Your task to perform on an android device: check android version Image 0: 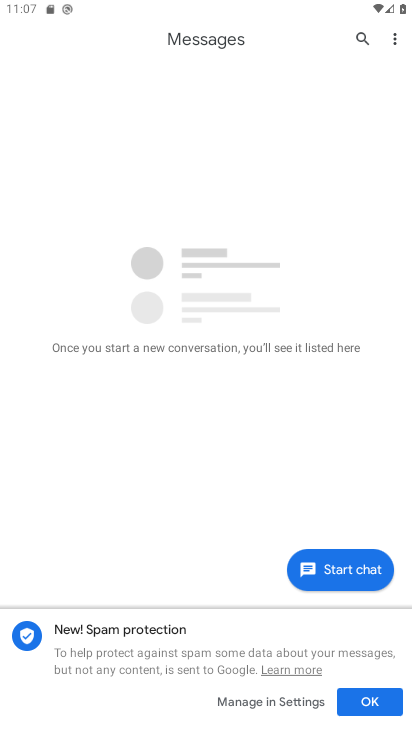
Step 0: press home button
Your task to perform on an android device: check android version Image 1: 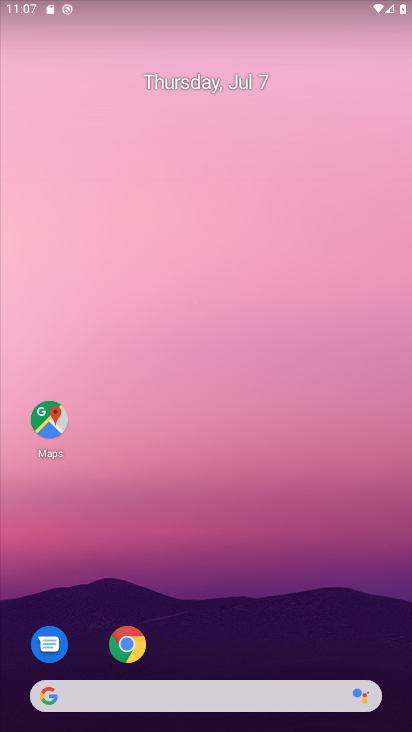
Step 1: drag from (261, 635) to (286, 172)
Your task to perform on an android device: check android version Image 2: 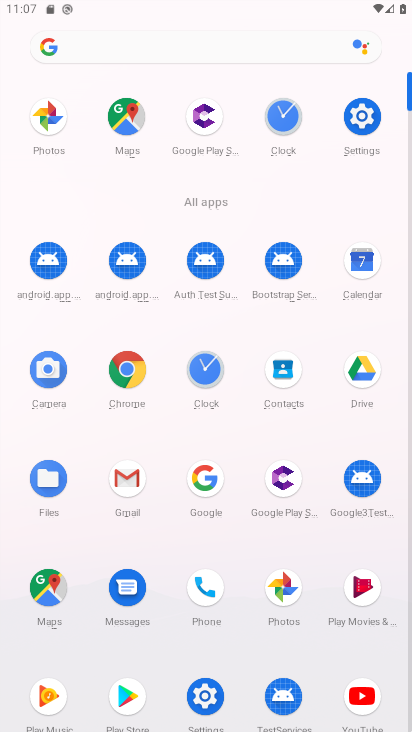
Step 2: click (364, 112)
Your task to perform on an android device: check android version Image 3: 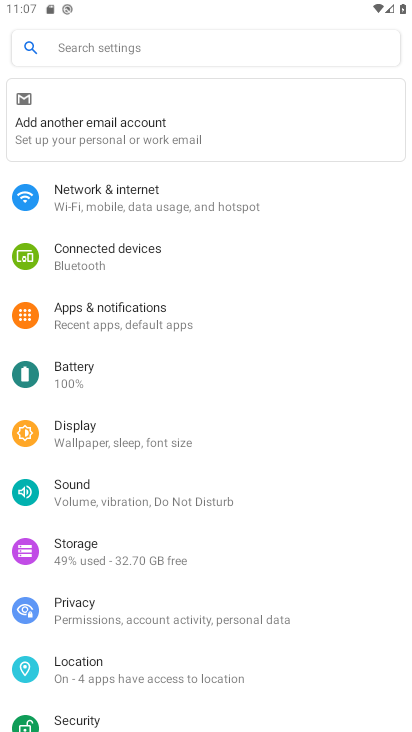
Step 3: drag from (343, 701) to (367, 157)
Your task to perform on an android device: check android version Image 4: 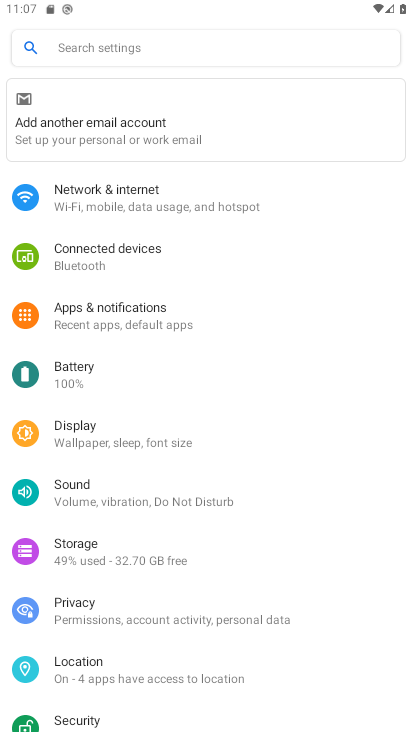
Step 4: drag from (166, 706) to (246, 92)
Your task to perform on an android device: check android version Image 5: 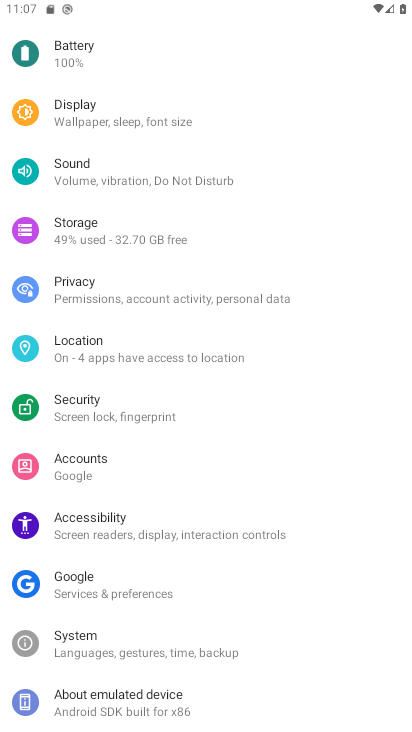
Step 5: click (137, 708)
Your task to perform on an android device: check android version Image 6: 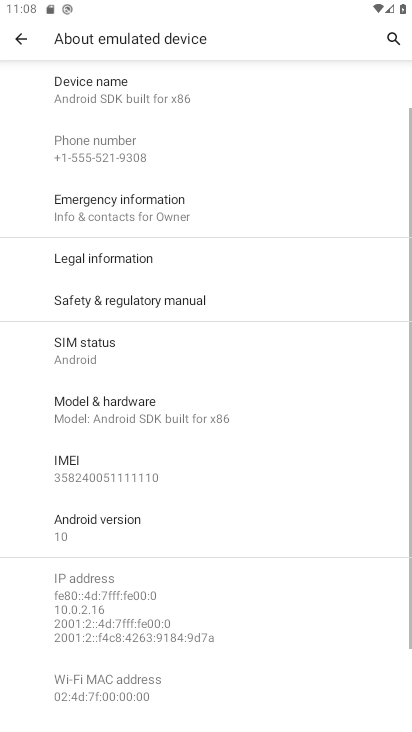
Step 6: drag from (220, 361) to (231, 468)
Your task to perform on an android device: check android version Image 7: 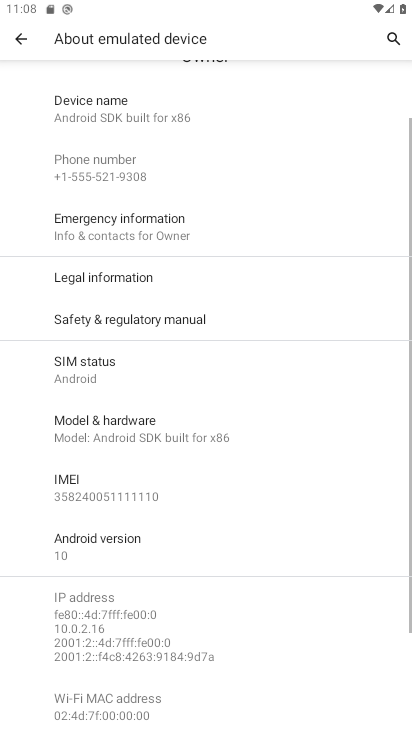
Step 7: drag from (333, 715) to (318, 554)
Your task to perform on an android device: check android version Image 8: 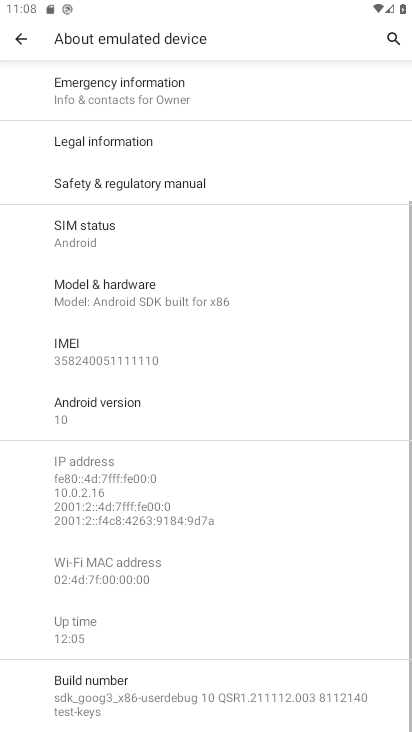
Step 8: click (89, 396)
Your task to perform on an android device: check android version Image 9: 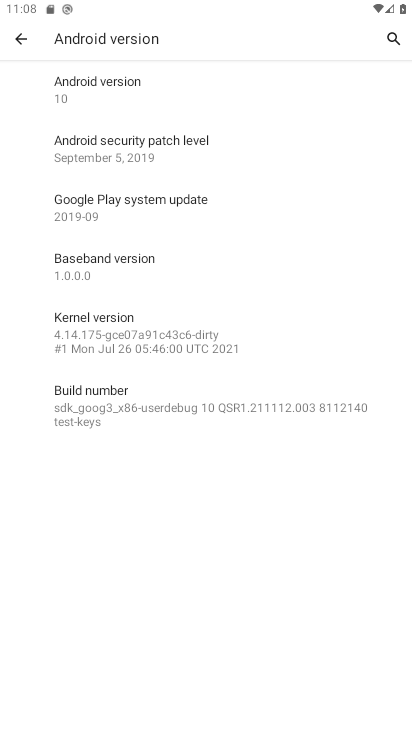
Step 9: task complete